Your task to perform on an android device: uninstall "Adobe Acrobat Reader" Image 0: 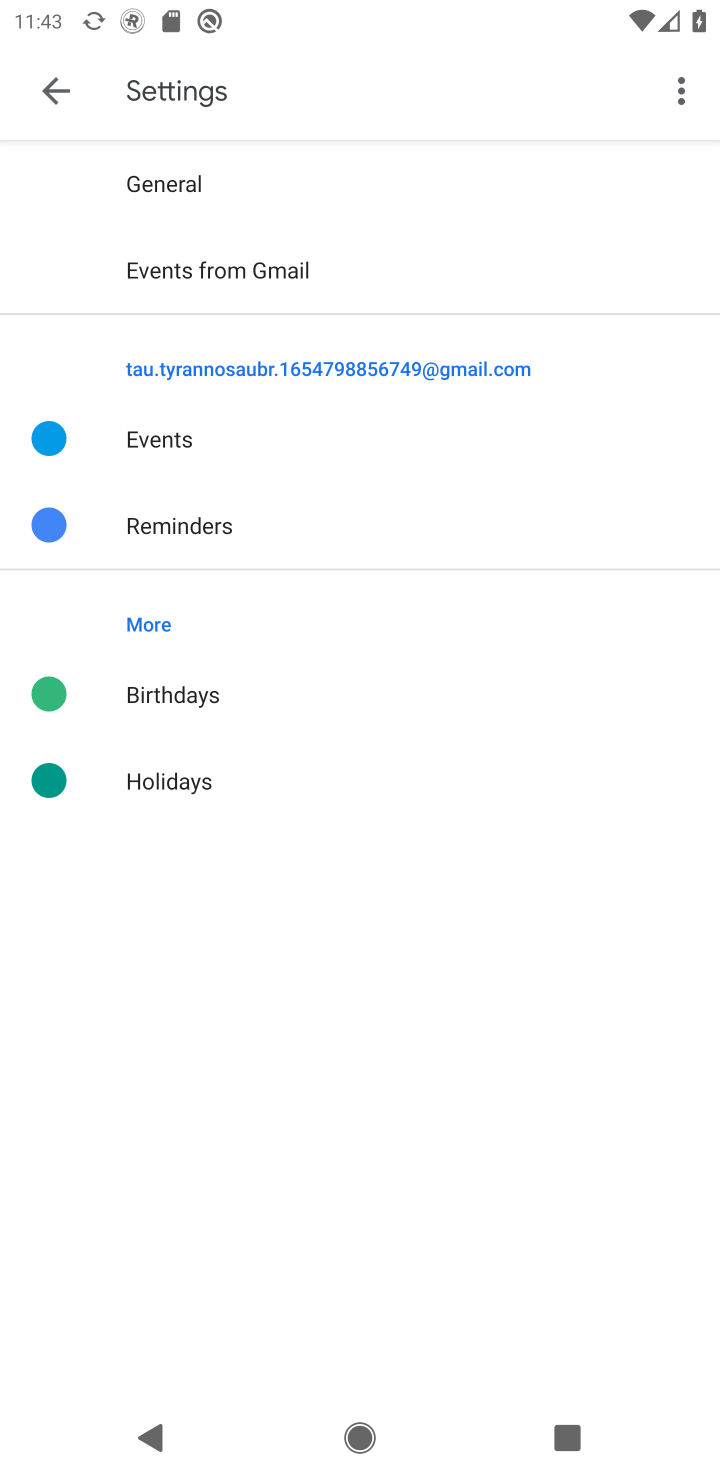
Step 0: press home button
Your task to perform on an android device: uninstall "Adobe Acrobat Reader" Image 1: 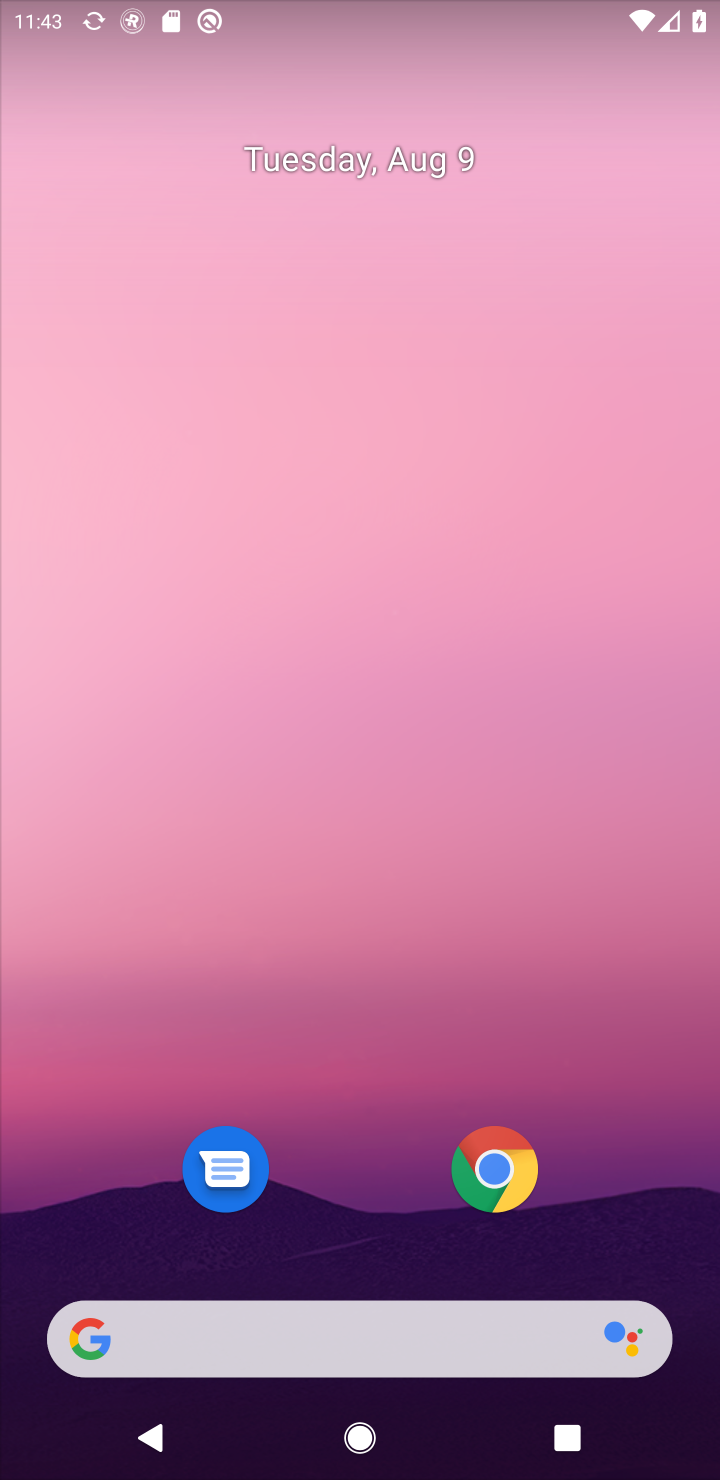
Step 1: drag from (624, 1025) to (625, 105)
Your task to perform on an android device: uninstall "Adobe Acrobat Reader" Image 2: 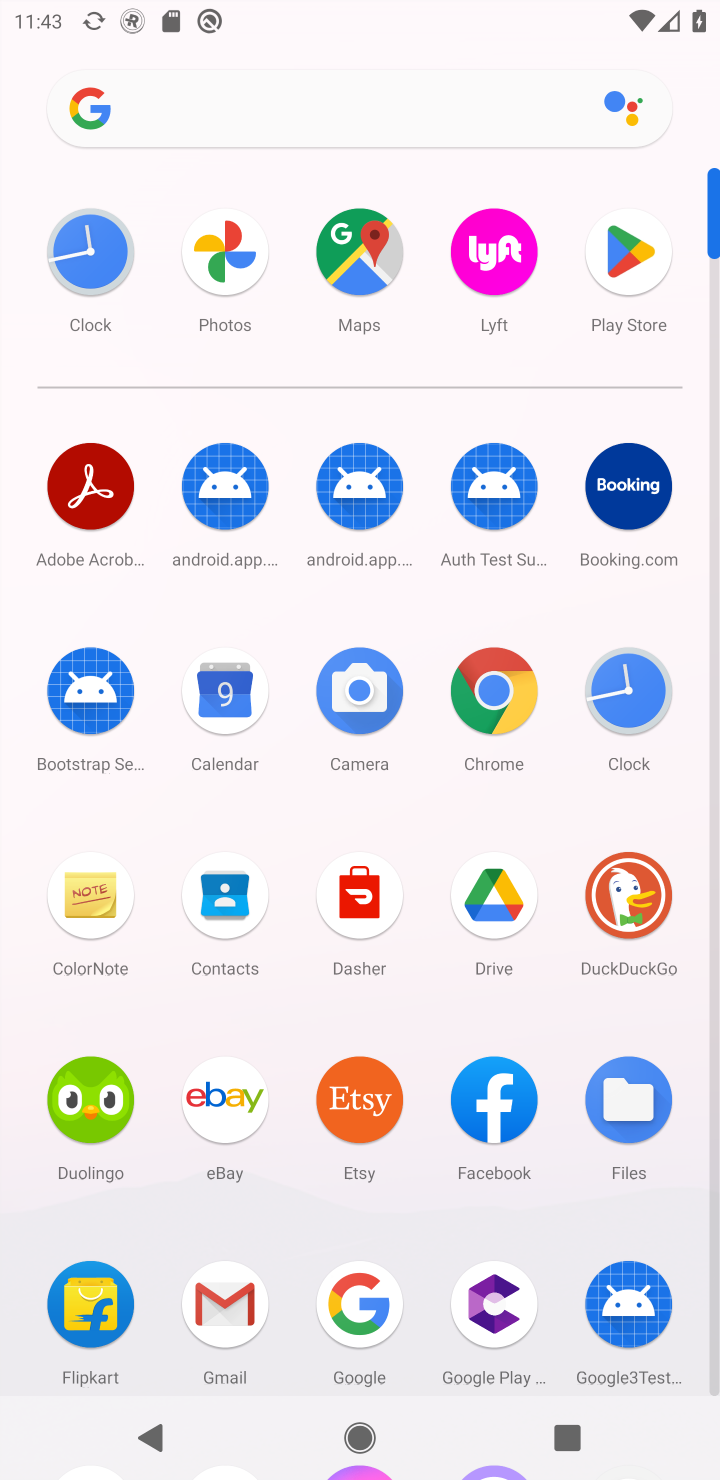
Step 2: click (630, 249)
Your task to perform on an android device: uninstall "Adobe Acrobat Reader" Image 3: 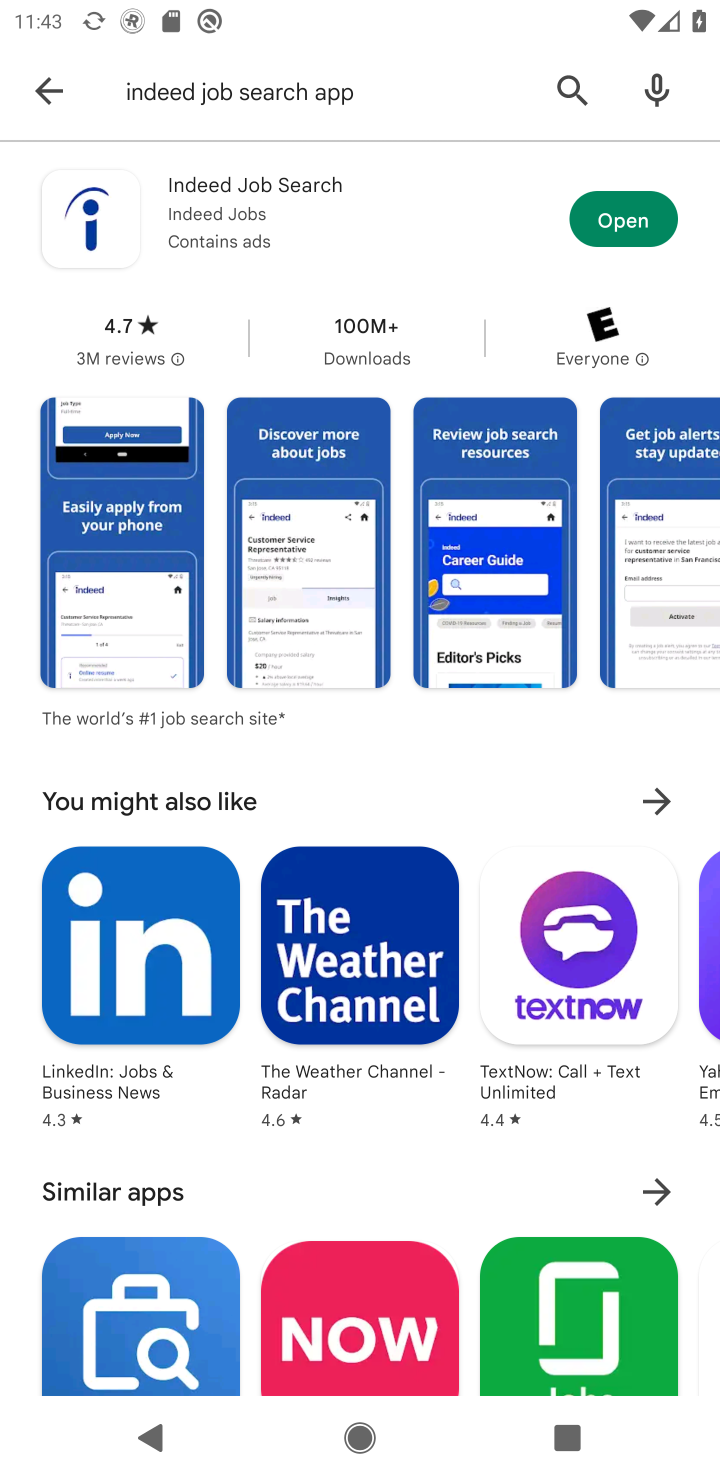
Step 3: click (562, 79)
Your task to perform on an android device: uninstall "Adobe Acrobat Reader" Image 4: 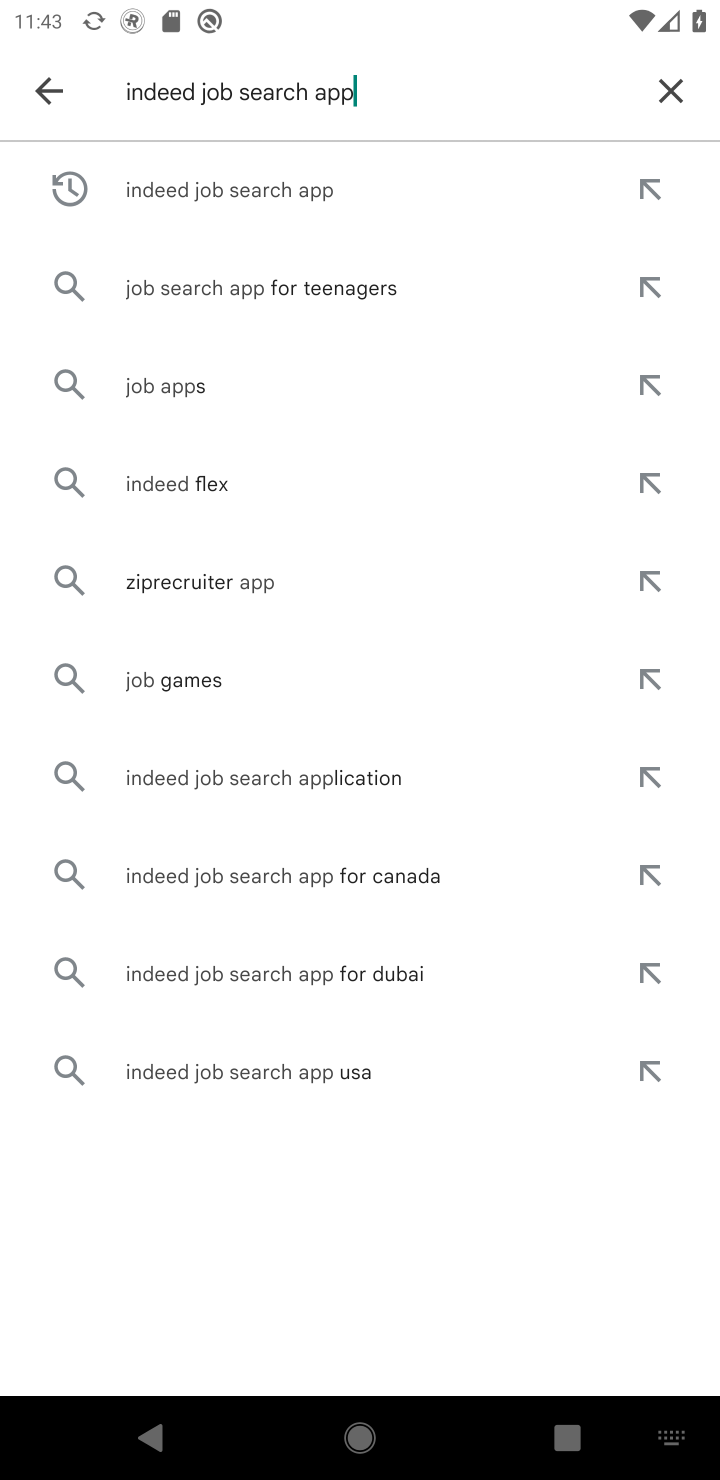
Step 4: click (668, 81)
Your task to perform on an android device: uninstall "Adobe Acrobat Reader" Image 5: 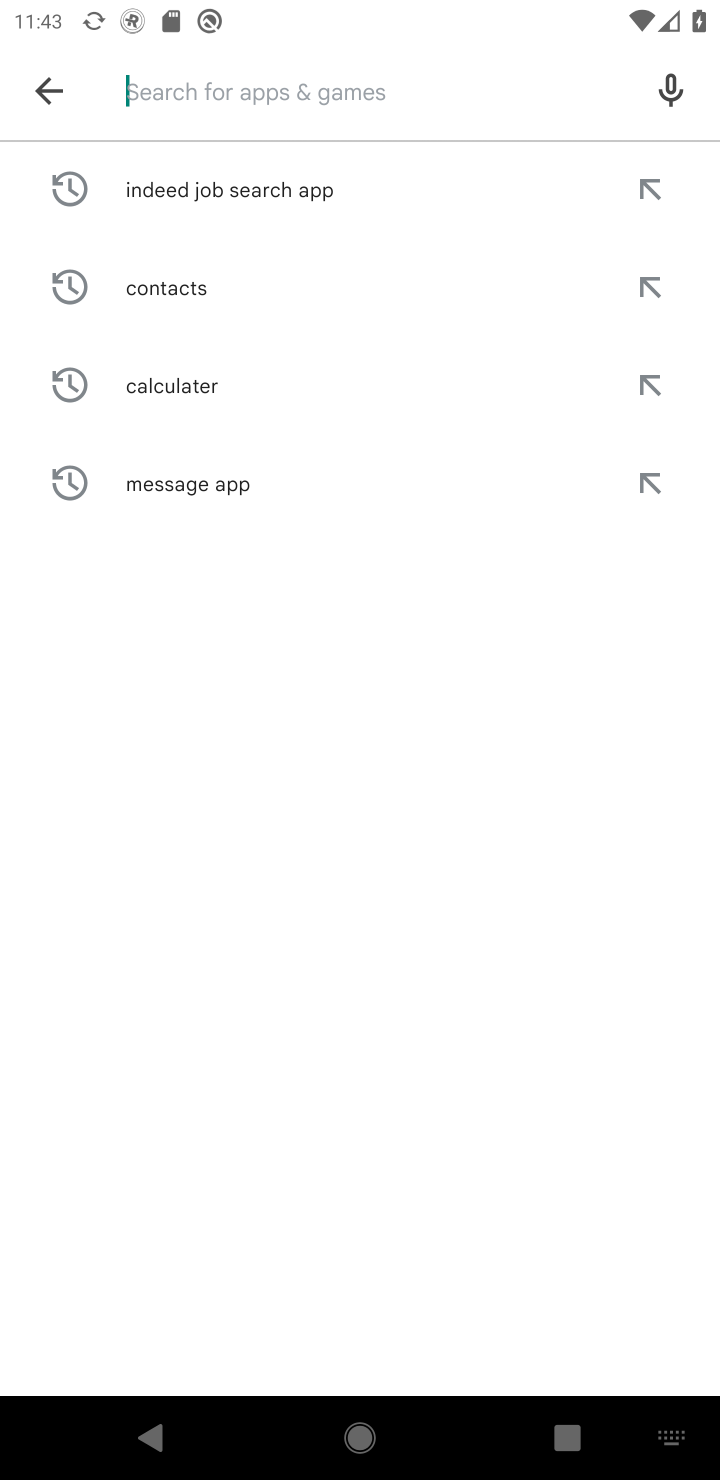
Step 5: type "adobe acrobat reader"
Your task to perform on an android device: uninstall "Adobe Acrobat Reader" Image 6: 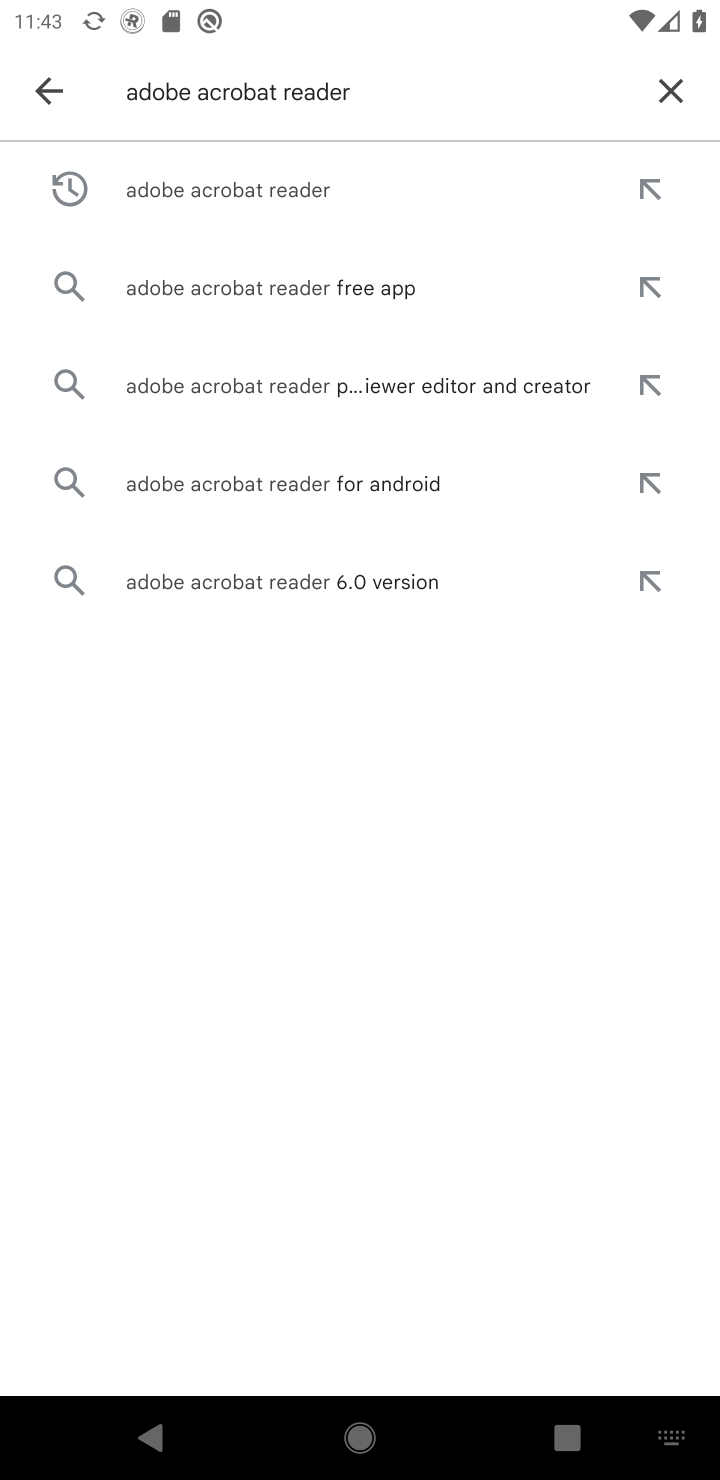
Step 6: click (320, 185)
Your task to perform on an android device: uninstall "Adobe Acrobat Reader" Image 7: 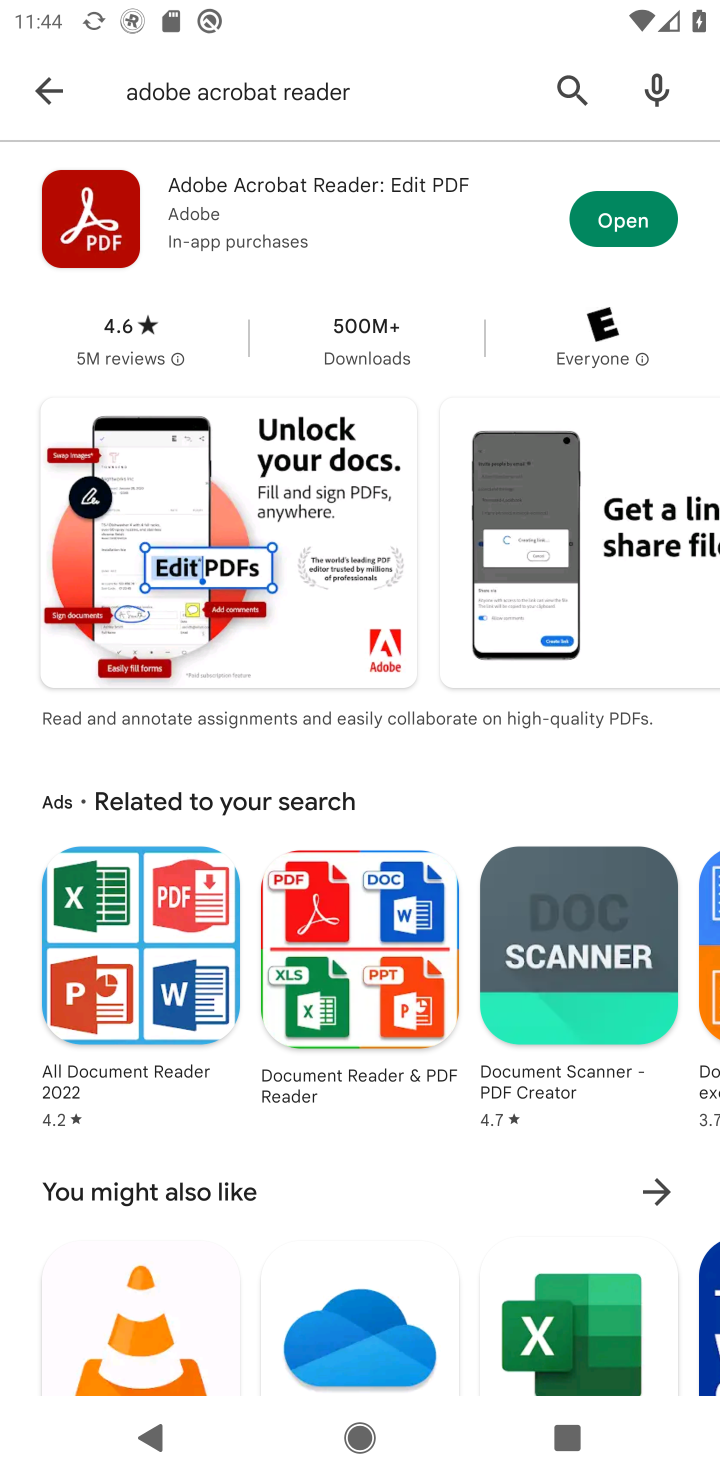
Step 7: task complete